Your task to perform on an android device: Search for flights from Boston to Zurich Image 0: 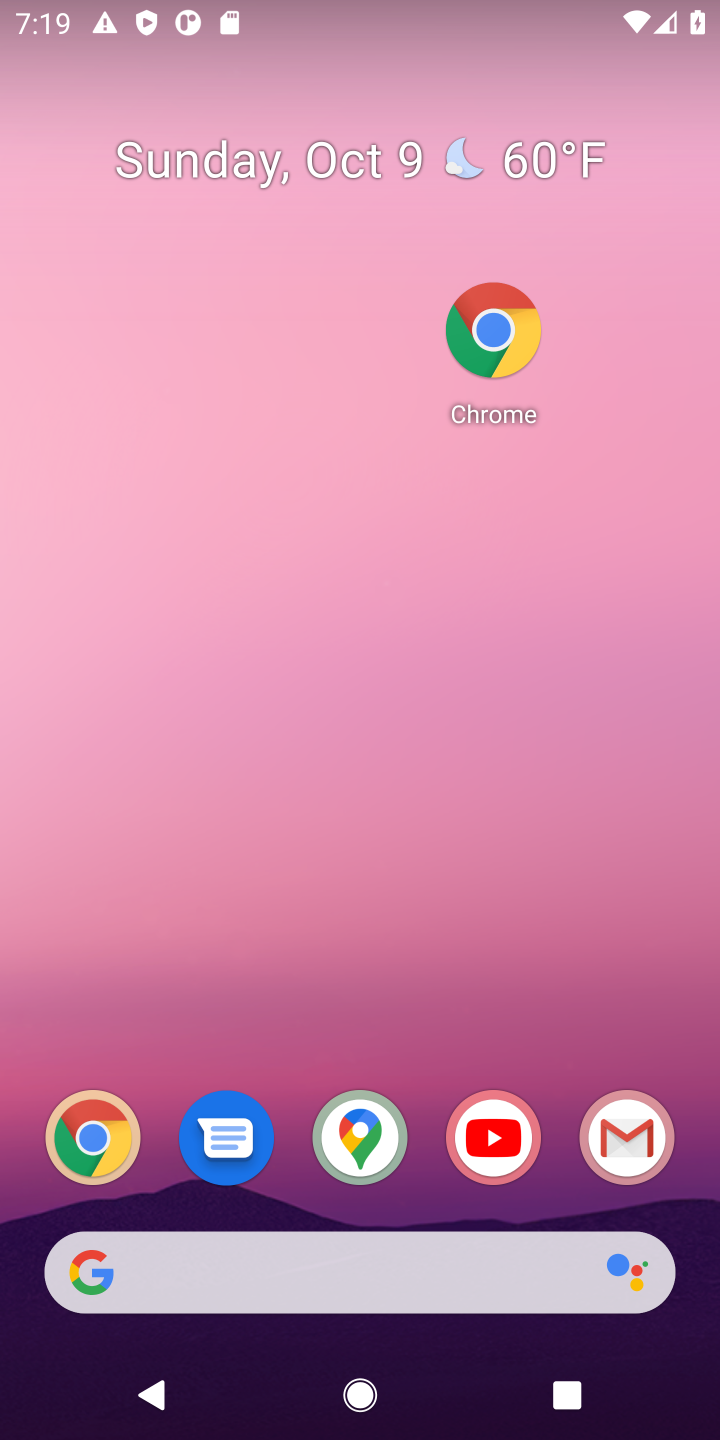
Step 0: click (93, 1150)
Your task to perform on an android device: Search for flights from Boston to Zurich Image 1: 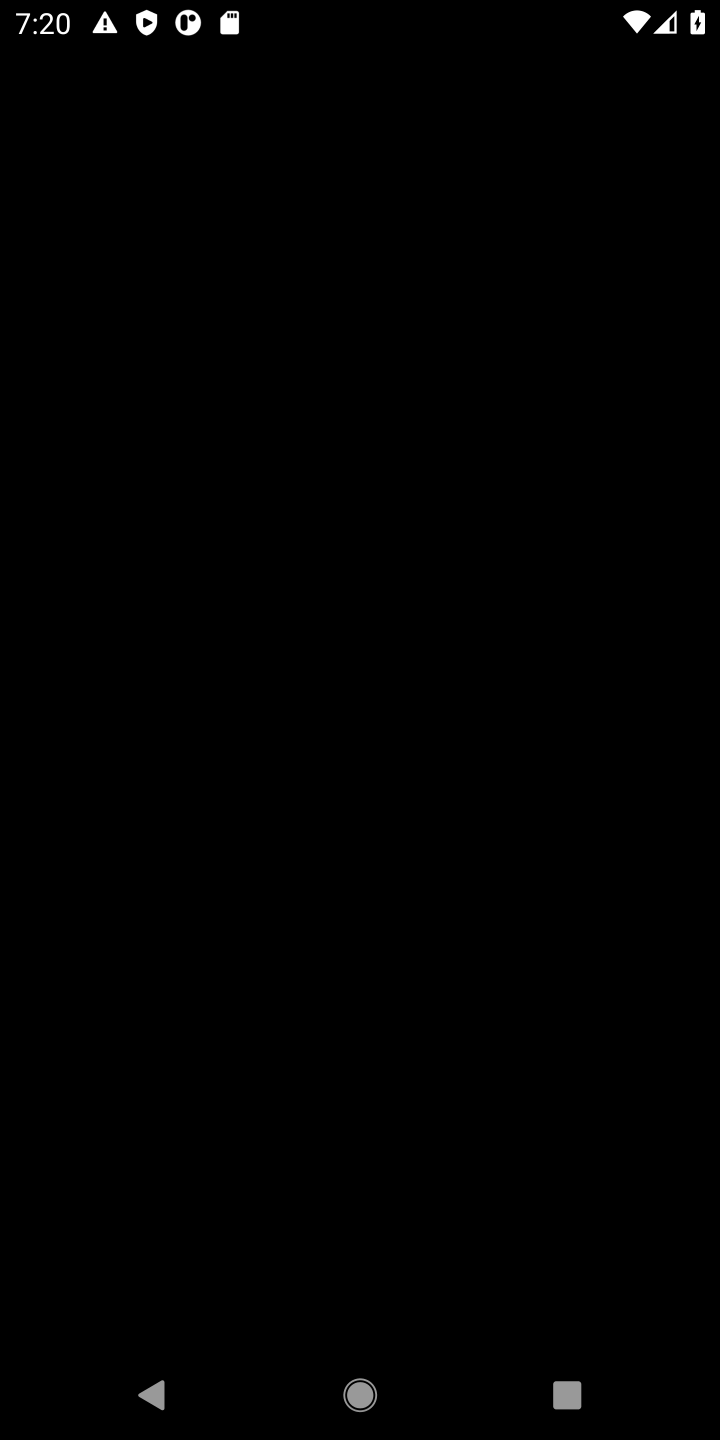
Step 1: press home button
Your task to perform on an android device: Search for flights from Boston to Zurich Image 2: 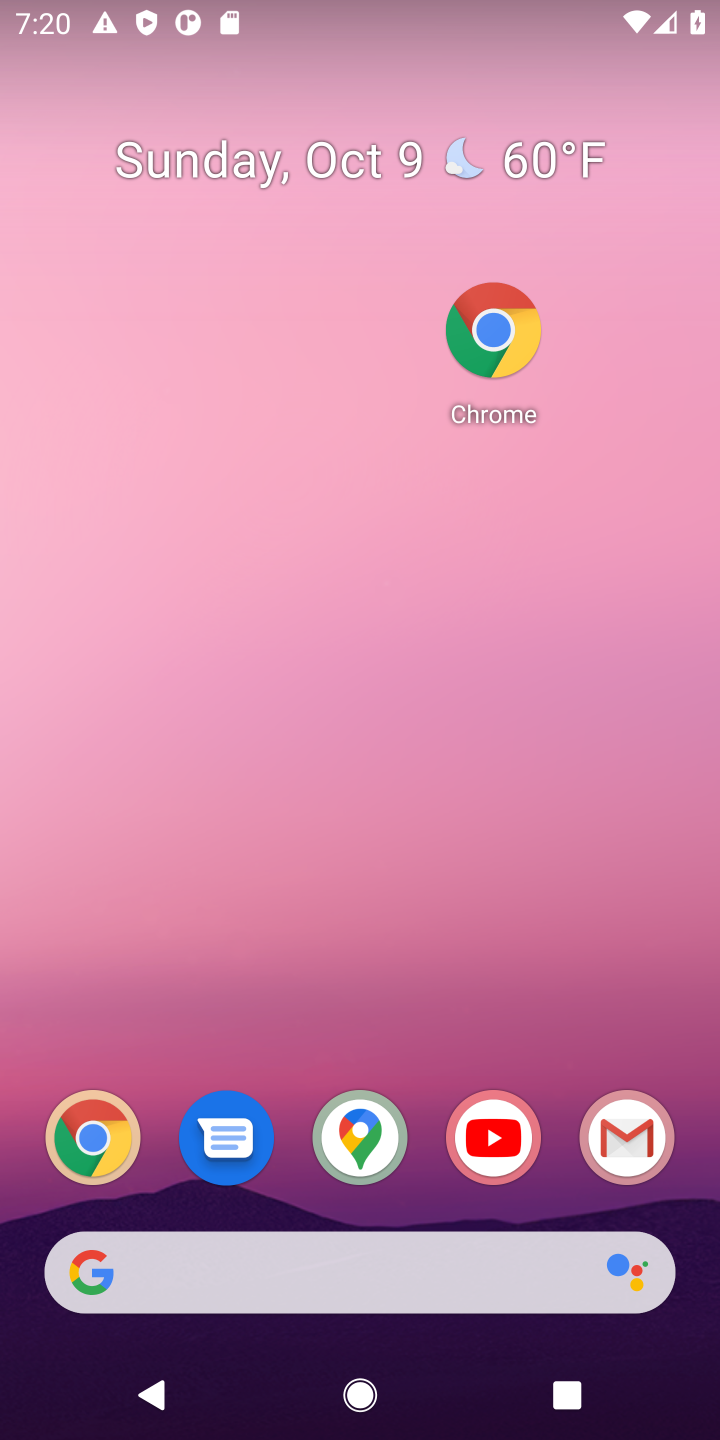
Step 2: click (104, 1139)
Your task to perform on an android device: Search for flights from Boston to Zurich Image 3: 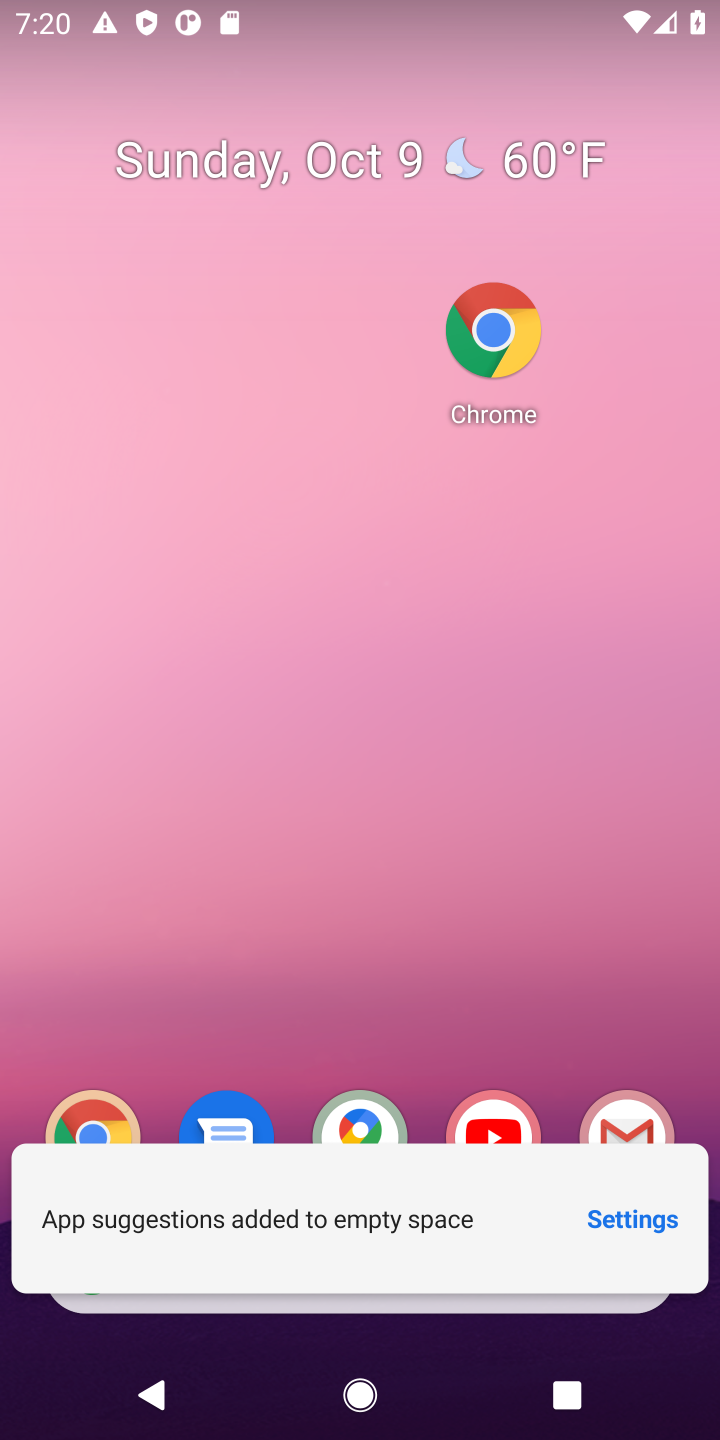
Step 3: click (370, 1086)
Your task to perform on an android device: Search for flights from Boston to Zurich Image 4: 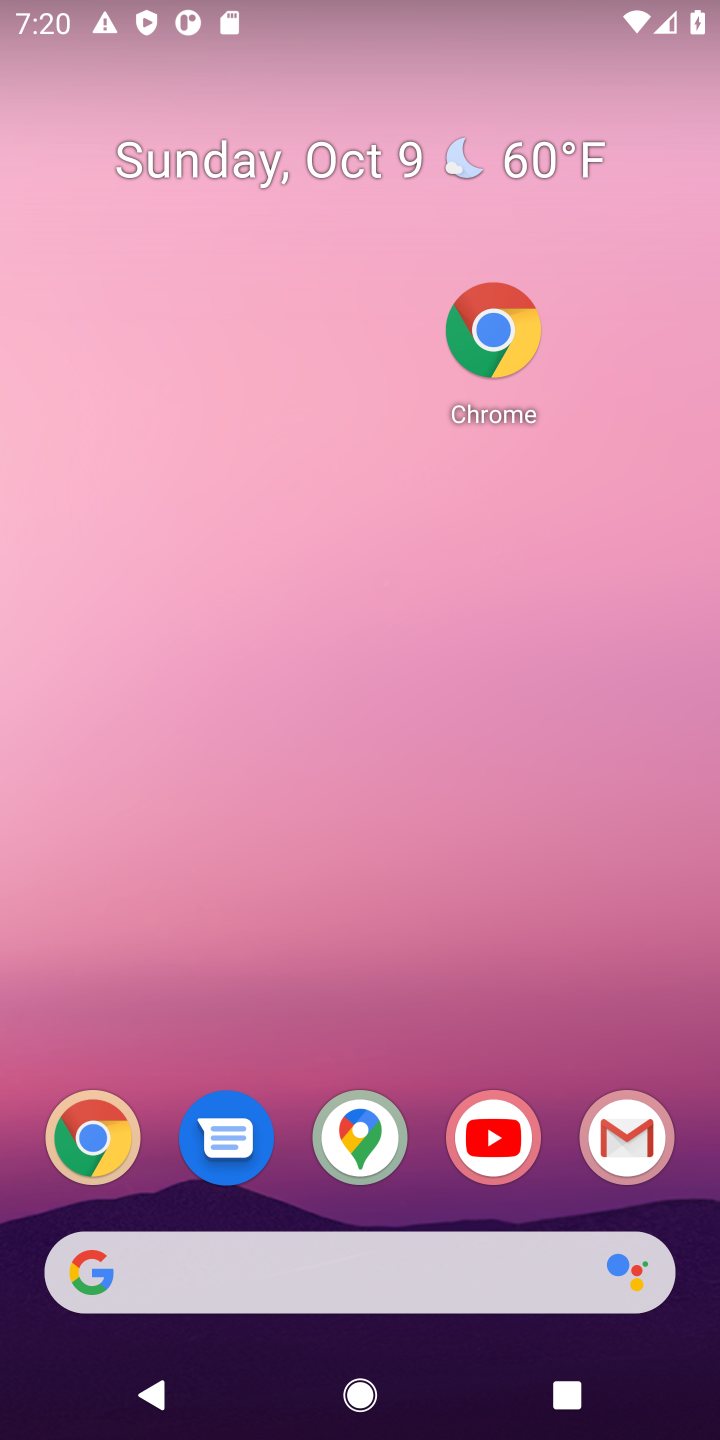
Step 4: click (102, 1126)
Your task to perform on an android device: Search for flights from Boston to Zurich Image 5: 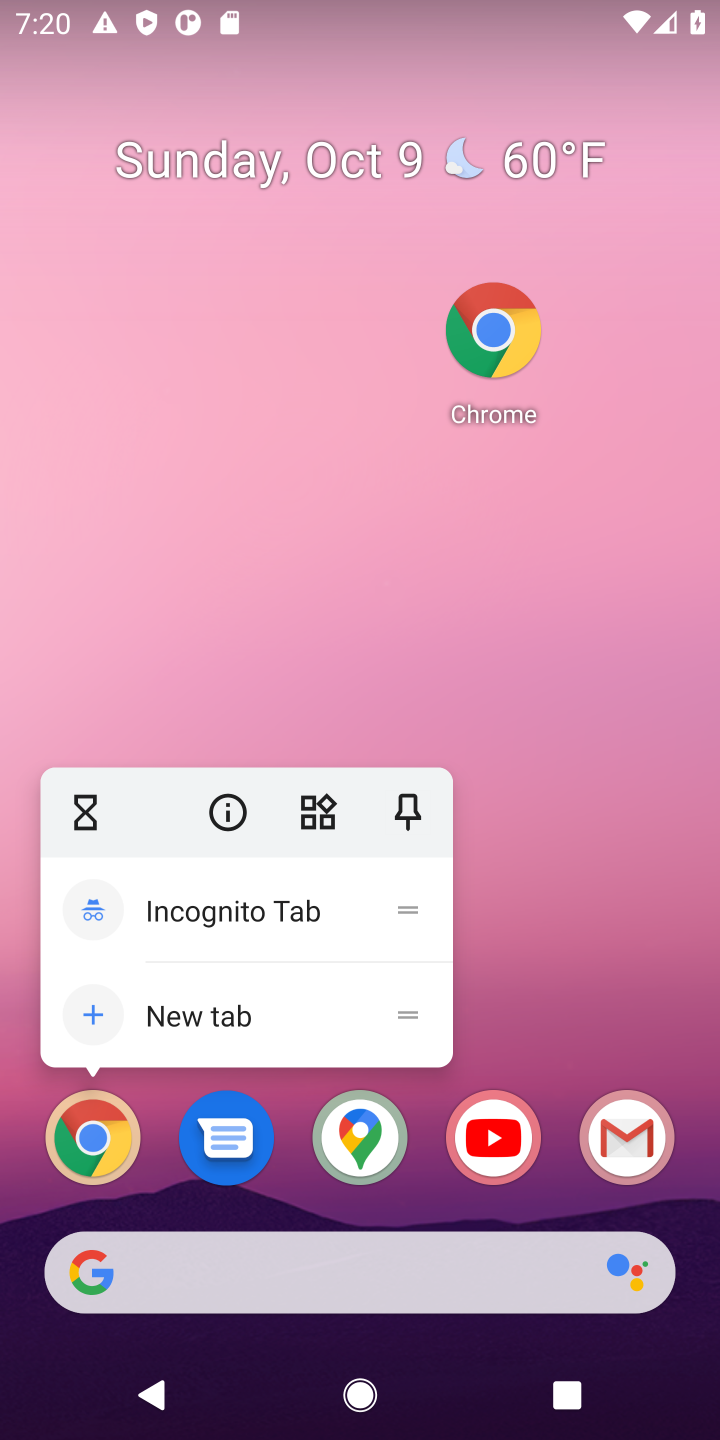
Step 5: click (182, 1268)
Your task to perform on an android device: Search for flights from Boston to Zurich Image 6: 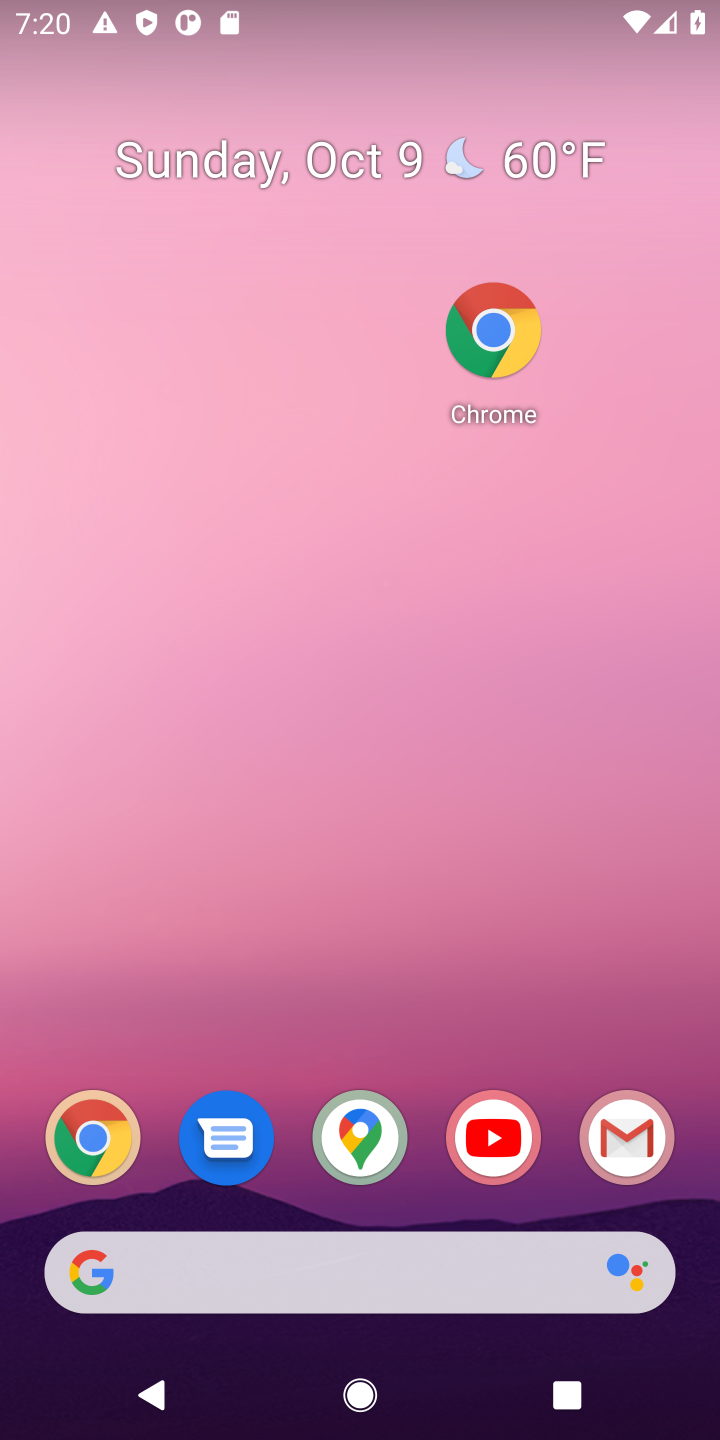
Step 6: click (314, 1266)
Your task to perform on an android device: Search for flights from Boston to Zurich Image 7: 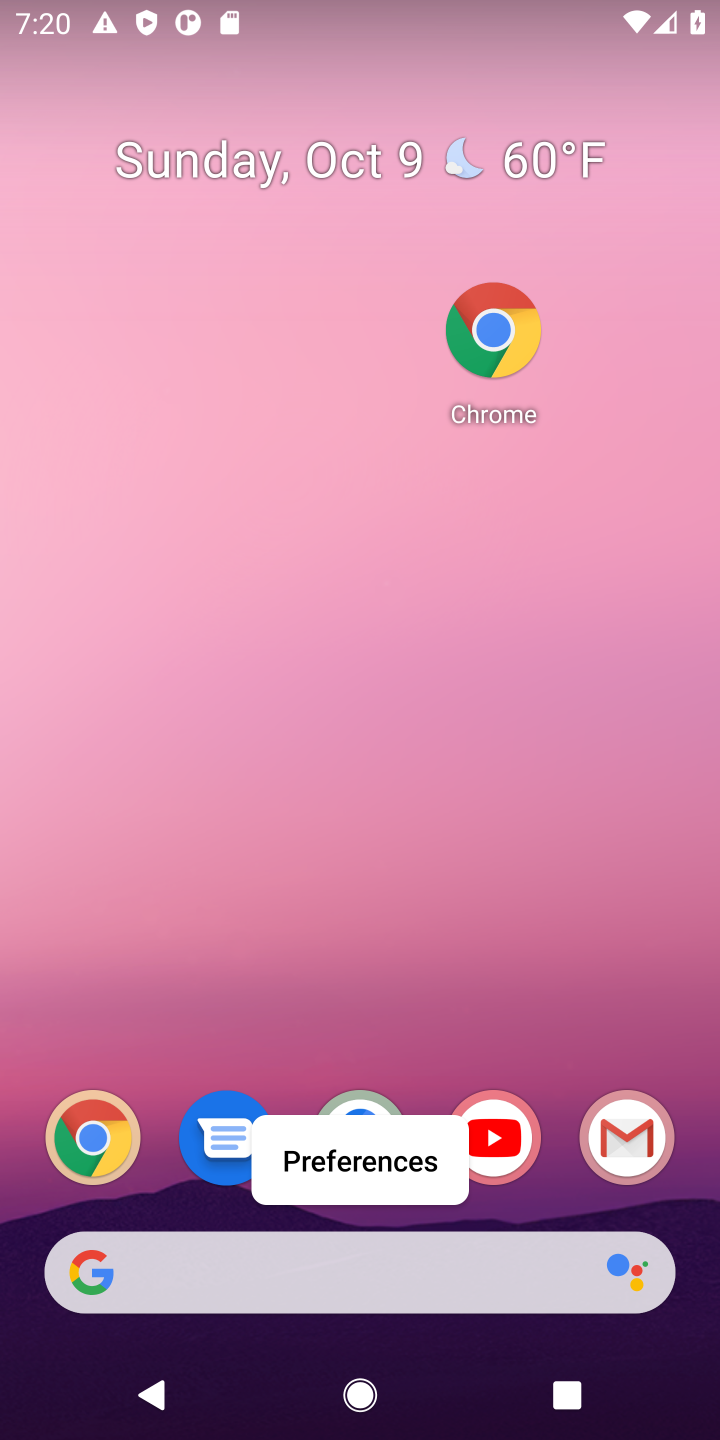
Step 7: click (501, 343)
Your task to perform on an android device: Search for flights from Boston to Zurich Image 8: 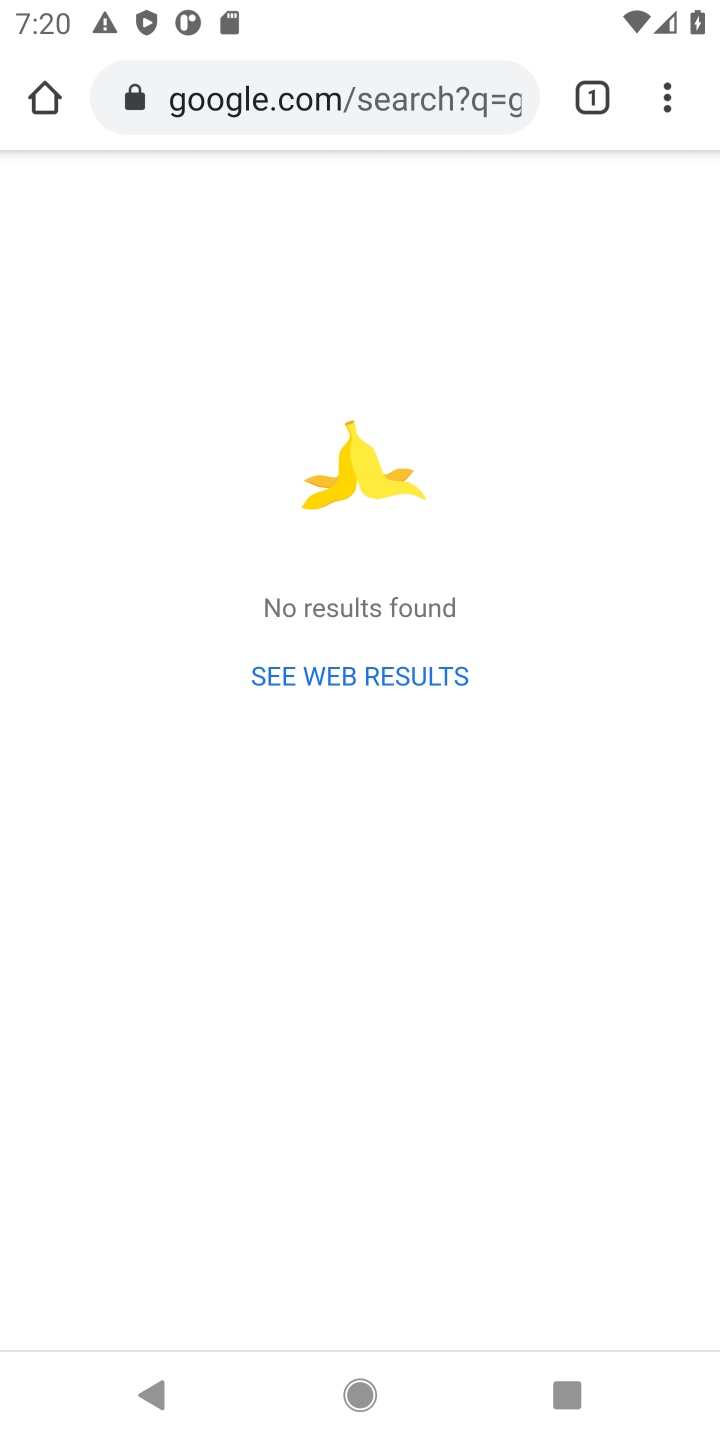
Step 8: click (347, 106)
Your task to perform on an android device: Search for flights from Boston to Zurich Image 9: 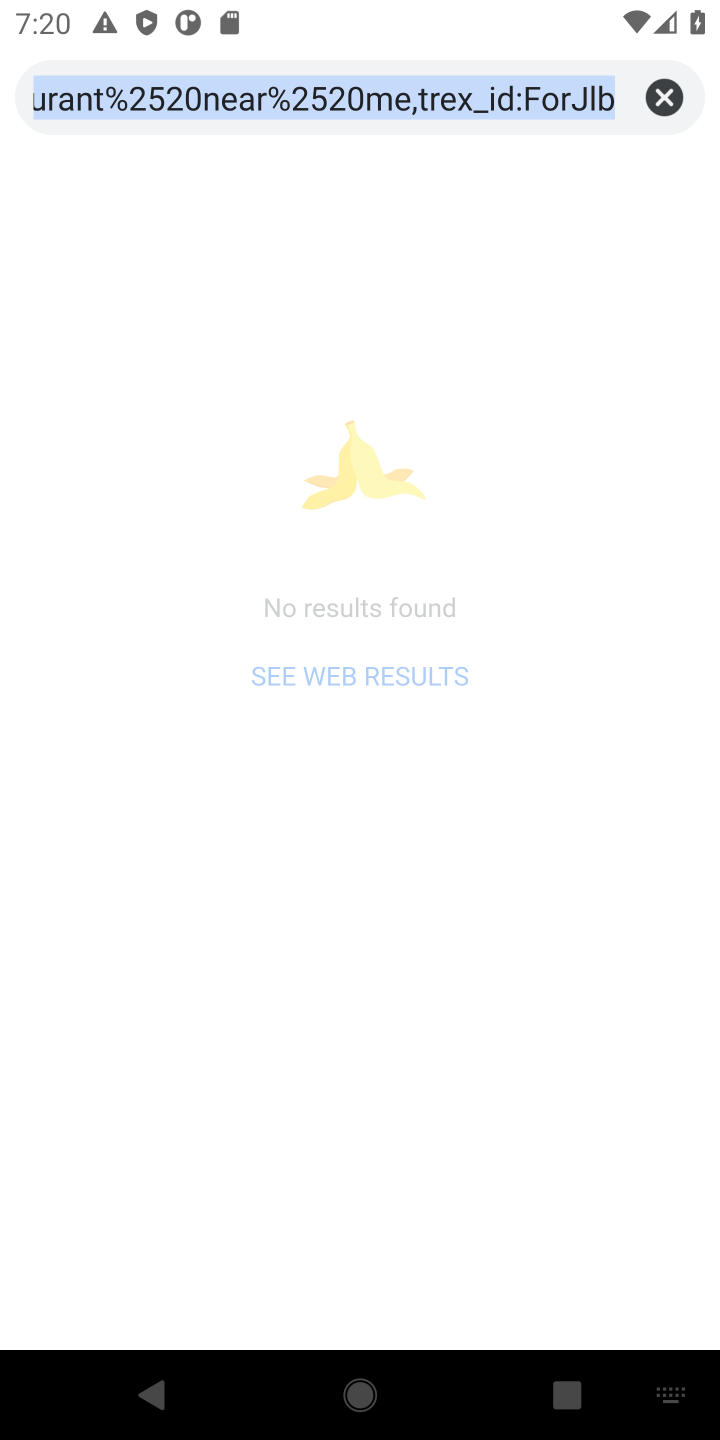
Step 9: type "flights from Boston to Zurich"
Your task to perform on an android device: Search for flights from Boston to Zurich Image 10: 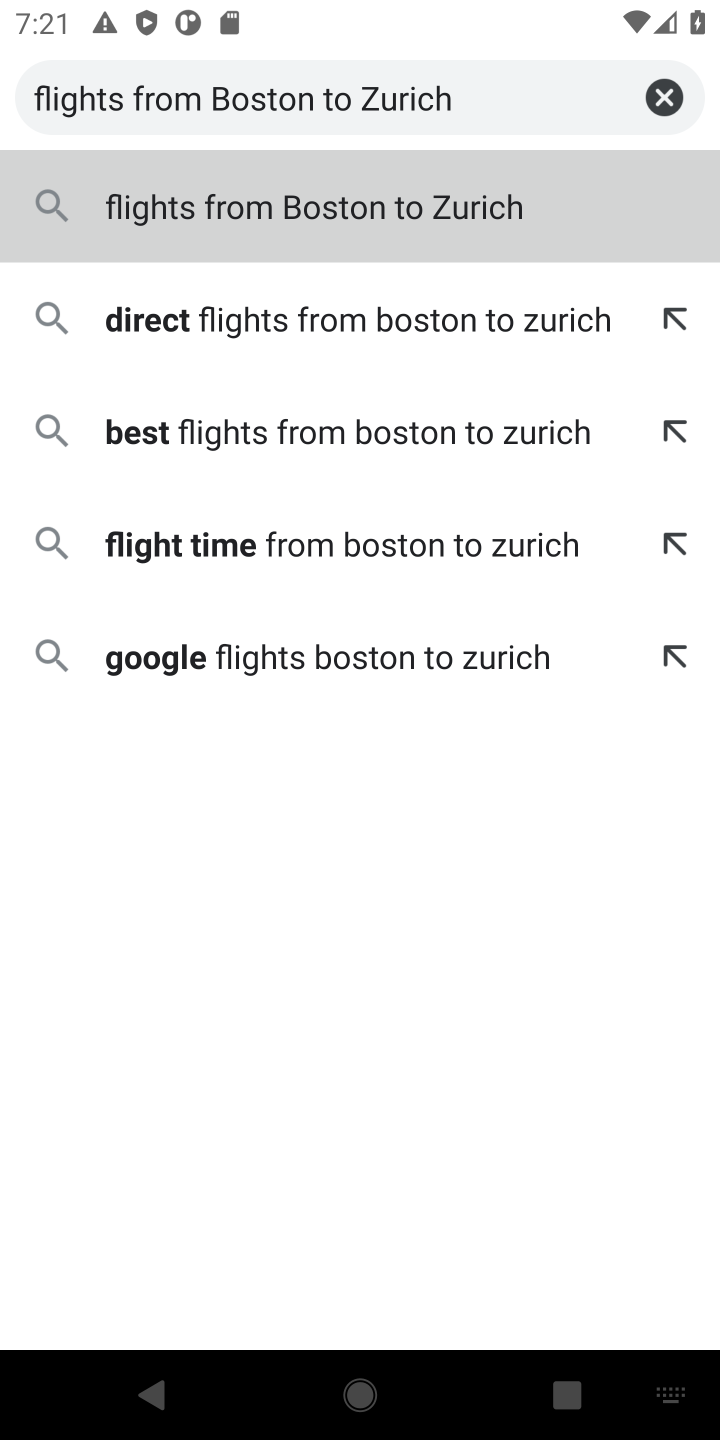
Step 10: press enter
Your task to perform on an android device: Search for flights from Boston to Zurich Image 11: 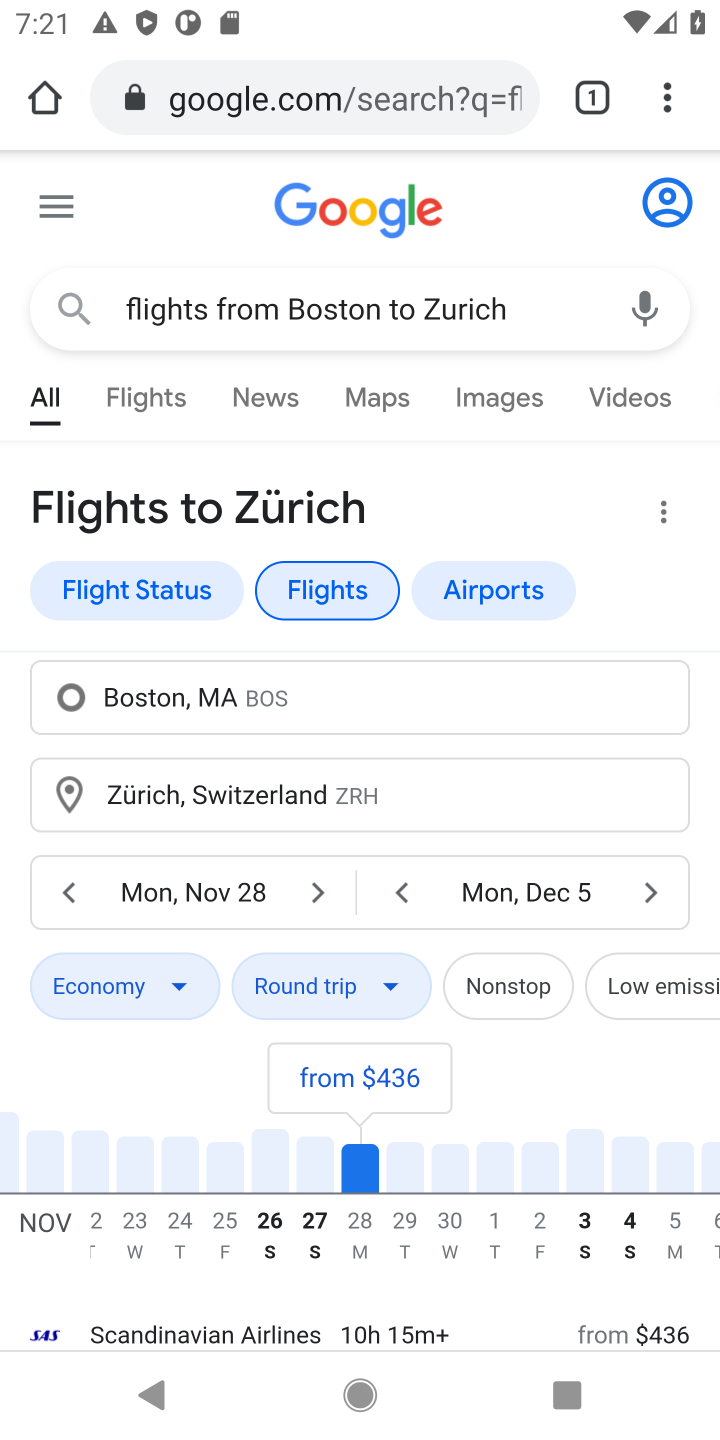
Step 11: drag from (473, 1068) to (520, 396)
Your task to perform on an android device: Search for flights from Boston to Zurich Image 12: 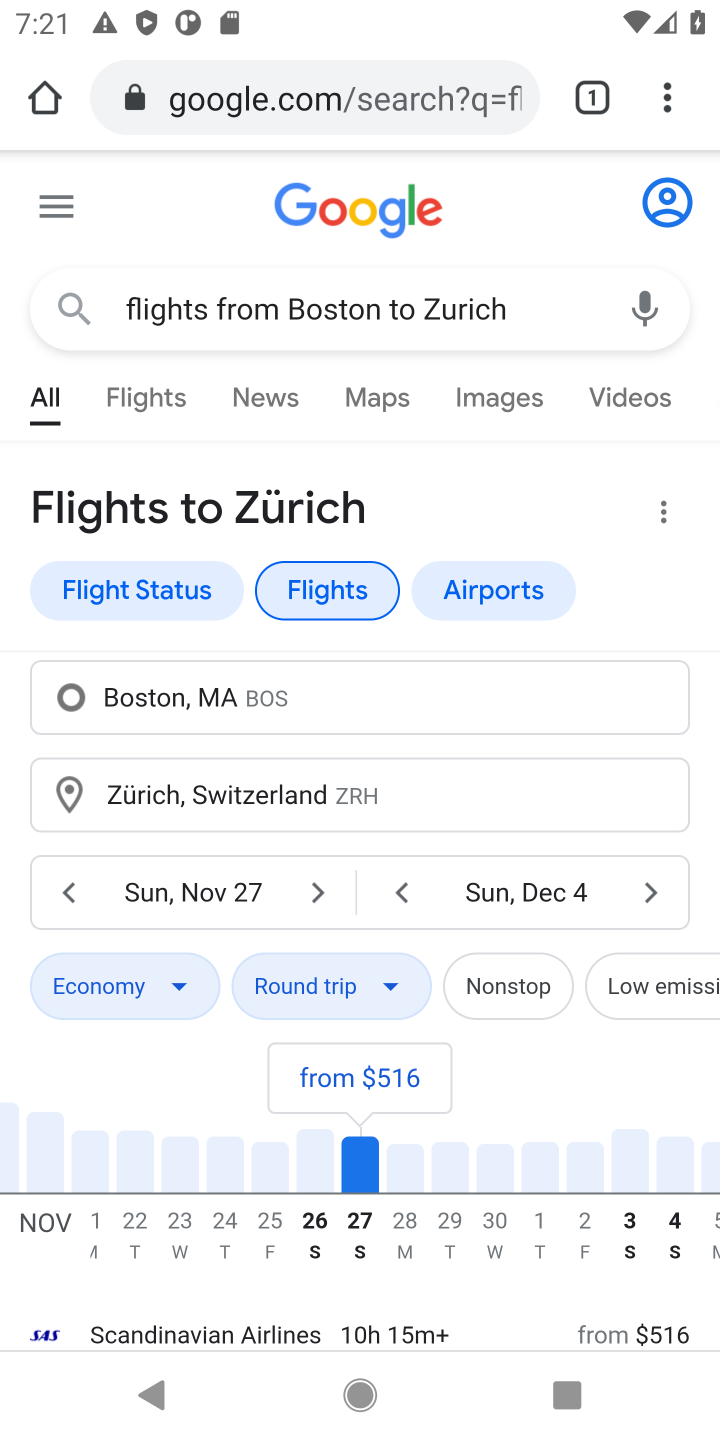
Step 12: drag from (515, 1109) to (527, 508)
Your task to perform on an android device: Search for flights from Boston to Zurich Image 13: 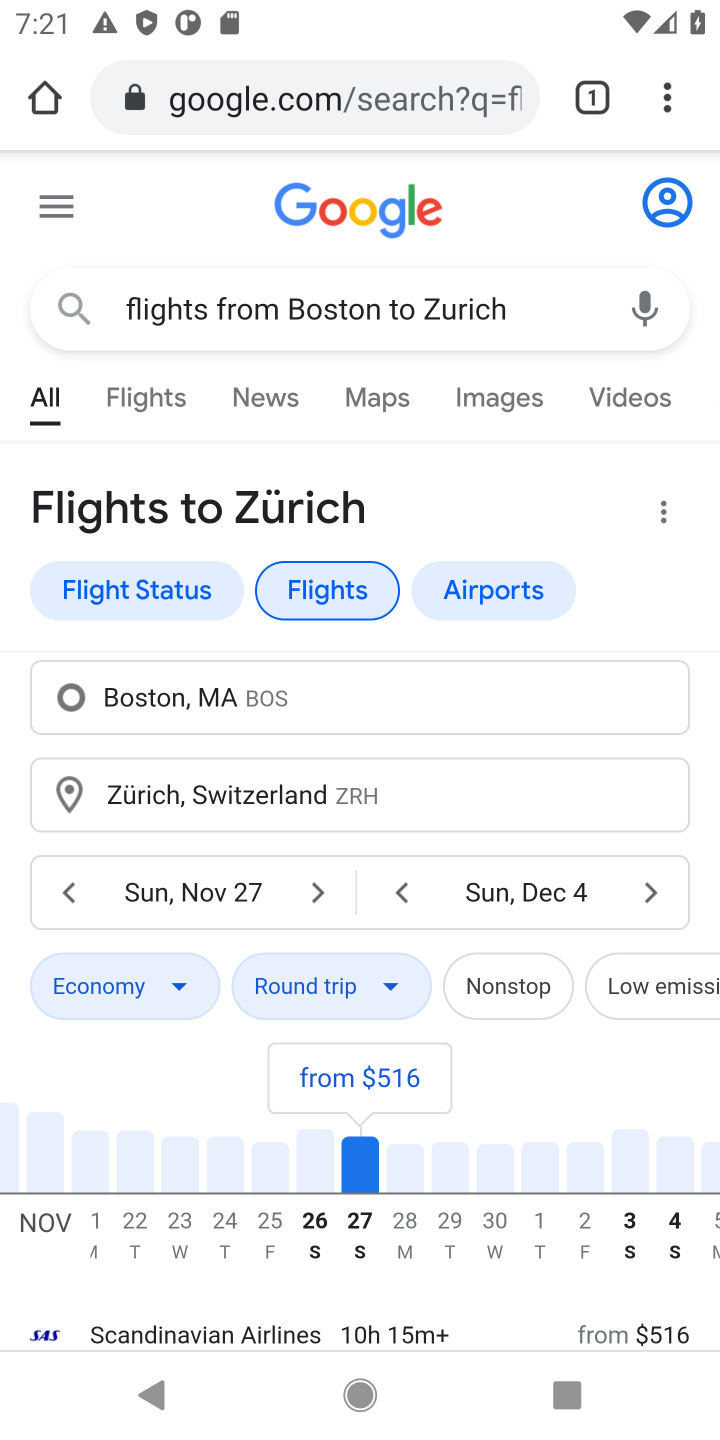
Step 13: drag from (477, 1300) to (396, 277)
Your task to perform on an android device: Search for flights from Boston to Zurich Image 14: 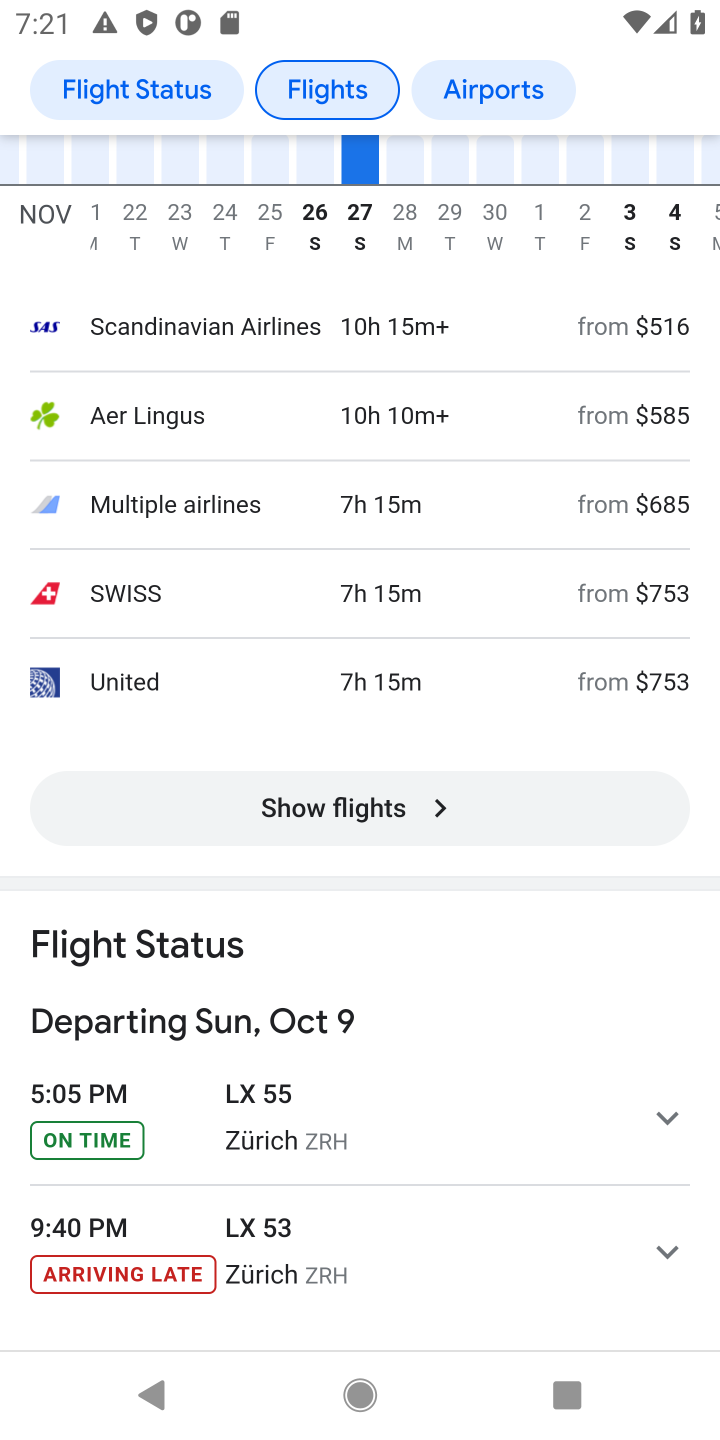
Step 14: click (389, 810)
Your task to perform on an android device: Search for flights from Boston to Zurich Image 15: 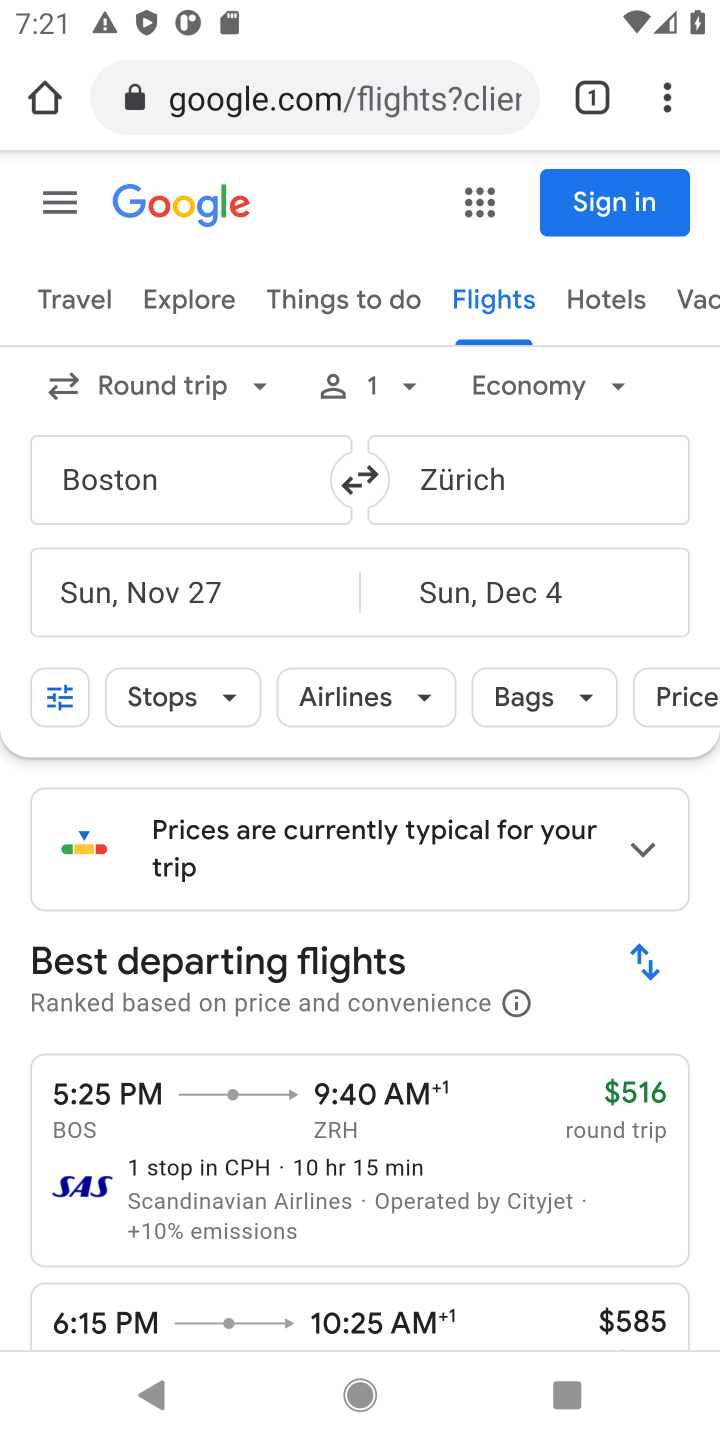
Step 15: task complete